Your task to perform on an android device: change keyboard looks Image 0: 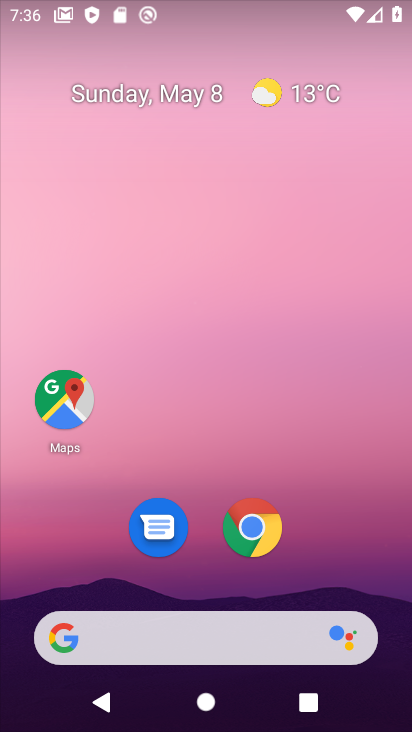
Step 0: drag from (366, 553) to (410, 101)
Your task to perform on an android device: change keyboard looks Image 1: 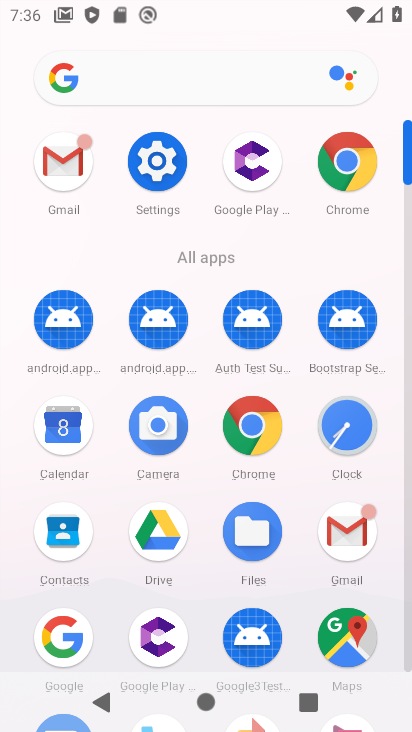
Step 1: click (160, 175)
Your task to perform on an android device: change keyboard looks Image 2: 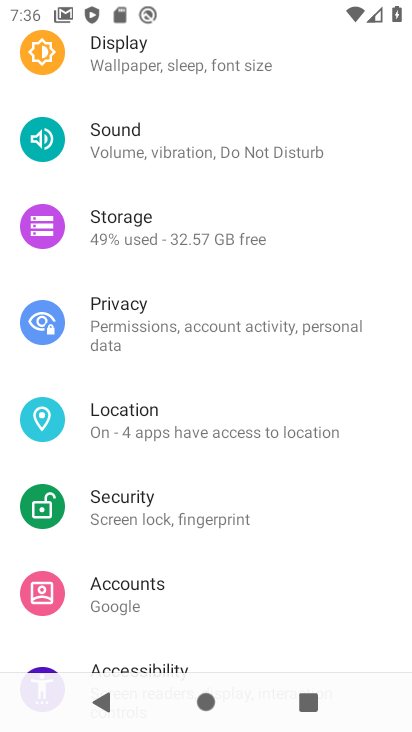
Step 2: drag from (108, 548) to (150, 171)
Your task to perform on an android device: change keyboard looks Image 3: 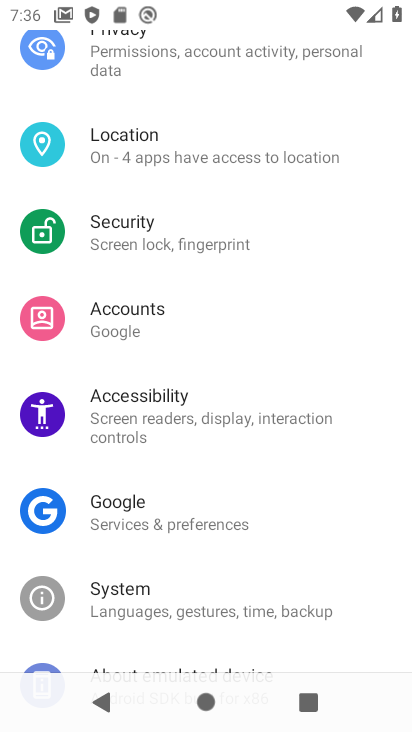
Step 3: drag from (158, 563) to (225, 165)
Your task to perform on an android device: change keyboard looks Image 4: 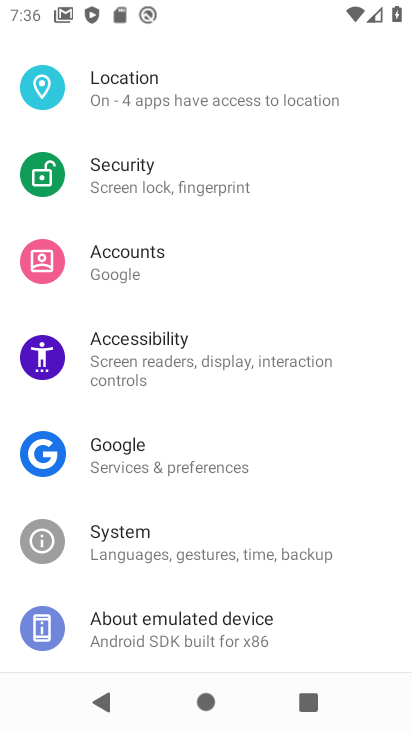
Step 4: drag from (175, 561) to (240, 189)
Your task to perform on an android device: change keyboard looks Image 5: 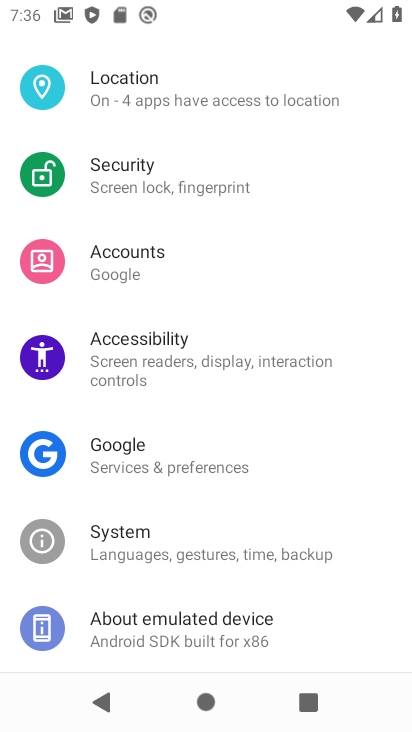
Step 5: click (135, 546)
Your task to perform on an android device: change keyboard looks Image 6: 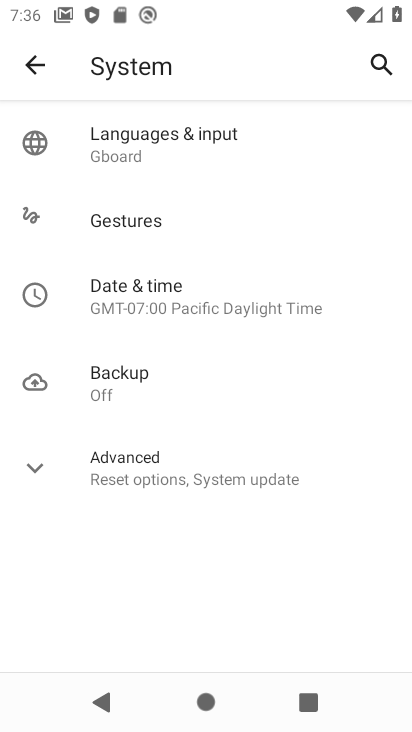
Step 6: click (110, 221)
Your task to perform on an android device: change keyboard looks Image 7: 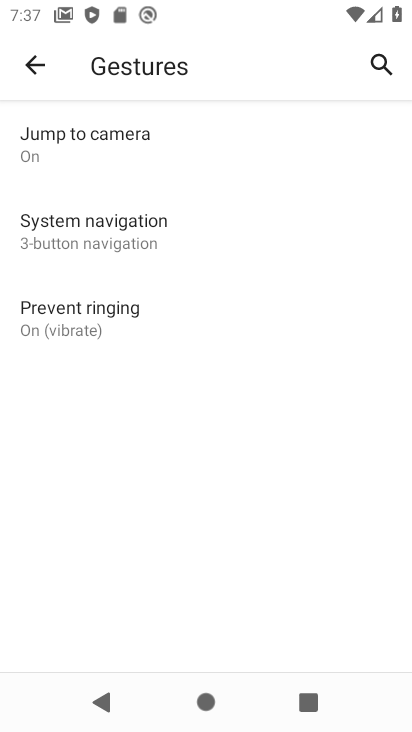
Step 7: click (30, 60)
Your task to perform on an android device: change keyboard looks Image 8: 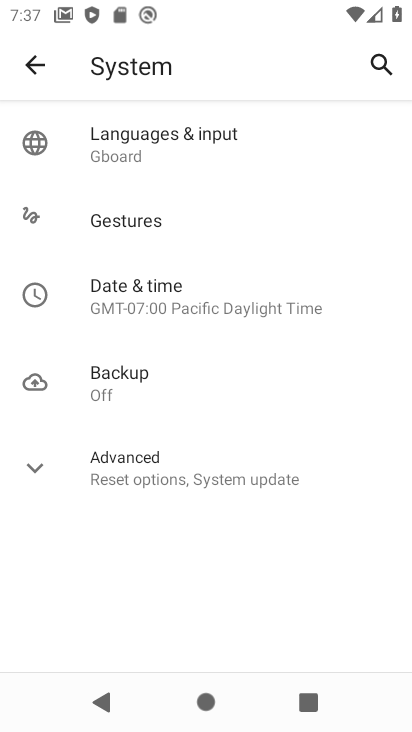
Step 8: click (108, 159)
Your task to perform on an android device: change keyboard looks Image 9: 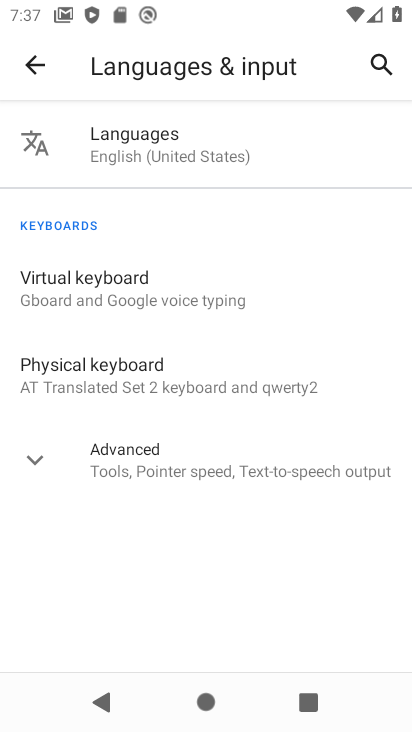
Step 9: click (98, 309)
Your task to perform on an android device: change keyboard looks Image 10: 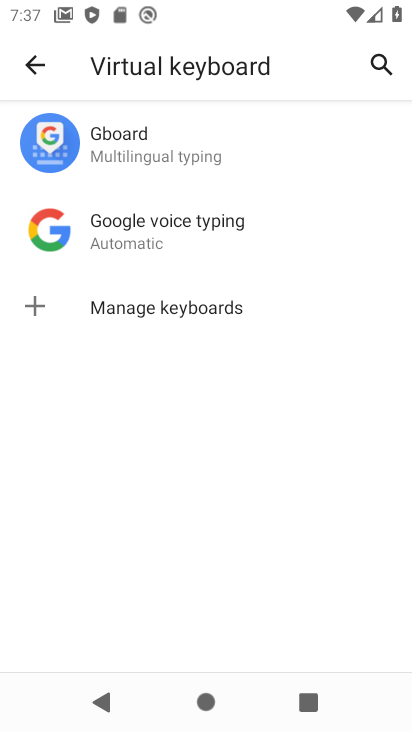
Step 10: click (180, 145)
Your task to perform on an android device: change keyboard looks Image 11: 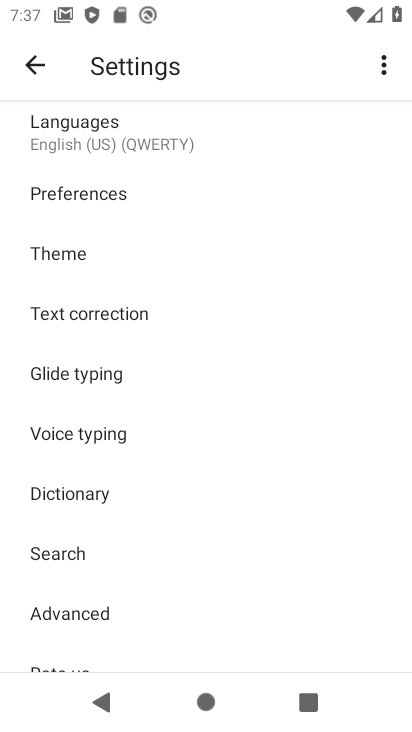
Step 11: click (72, 253)
Your task to perform on an android device: change keyboard looks Image 12: 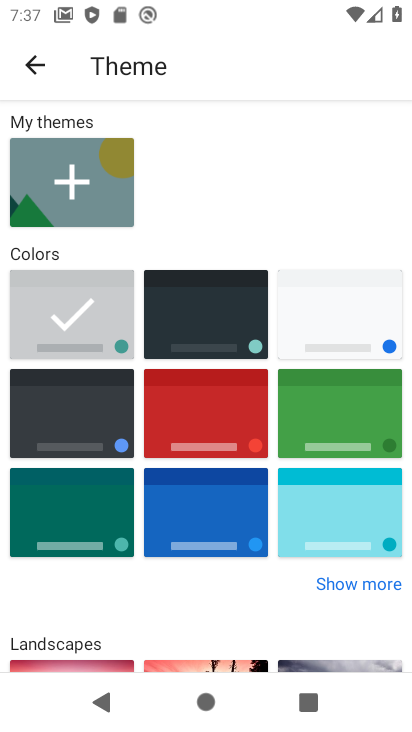
Step 12: click (201, 318)
Your task to perform on an android device: change keyboard looks Image 13: 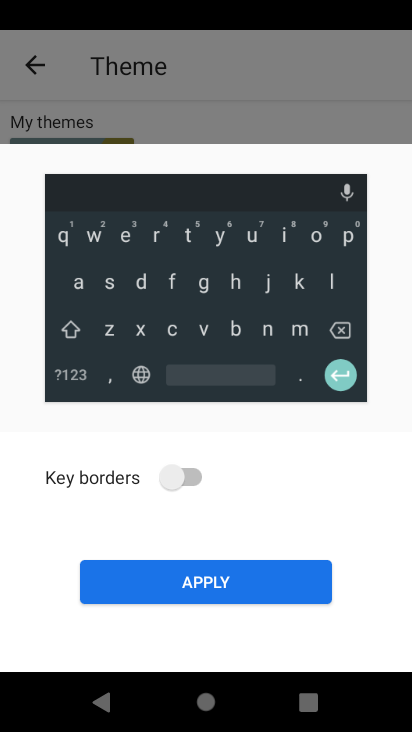
Step 13: click (171, 579)
Your task to perform on an android device: change keyboard looks Image 14: 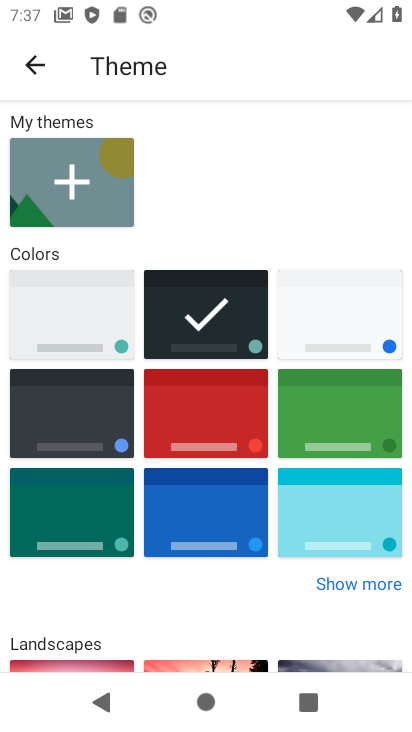
Step 14: task complete